Your task to perform on an android device: allow cookies in the chrome app Image 0: 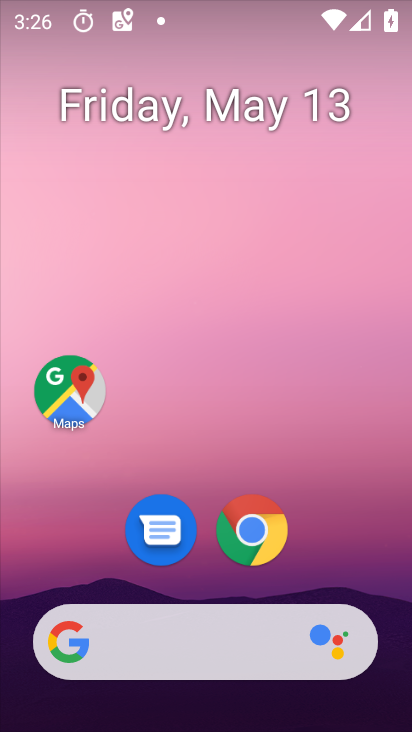
Step 0: click (257, 539)
Your task to perform on an android device: allow cookies in the chrome app Image 1: 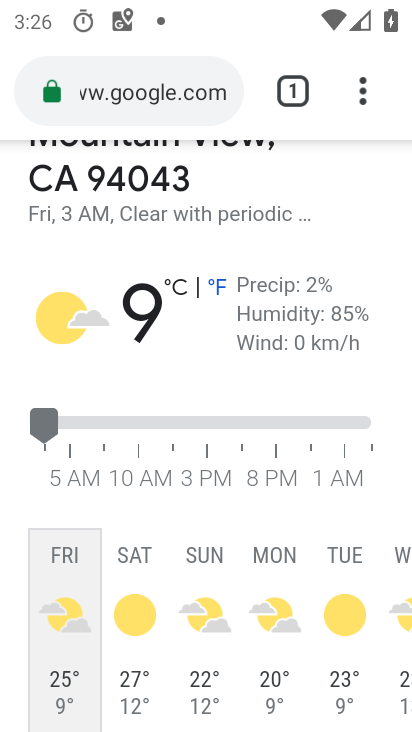
Step 1: click (360, 88)
Your task to perform on an android device: allow cookies in the chrome app Image 2: 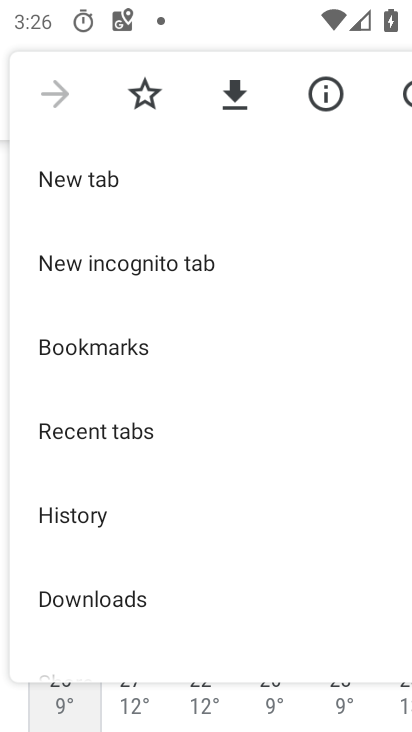
Step 2: drag from (221, 428) to (286, 37)
Your task to perform on an android device: allow cookies in the chrome app Image 3: 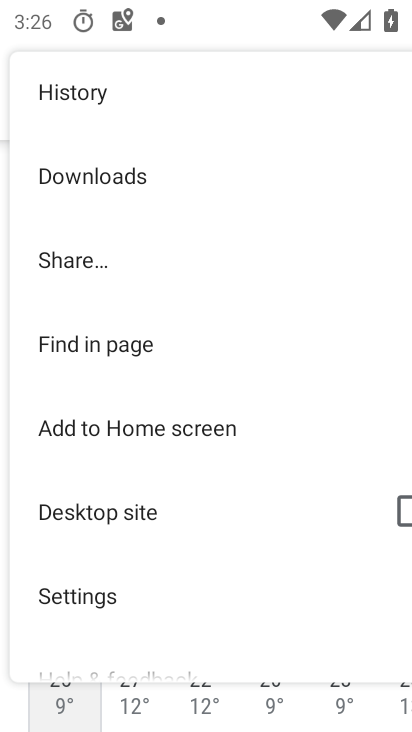
Step 3: drag from (190, 557) to (261, 242)
Your task to perform on an android device: allow cookies in the chrome app Image 4: 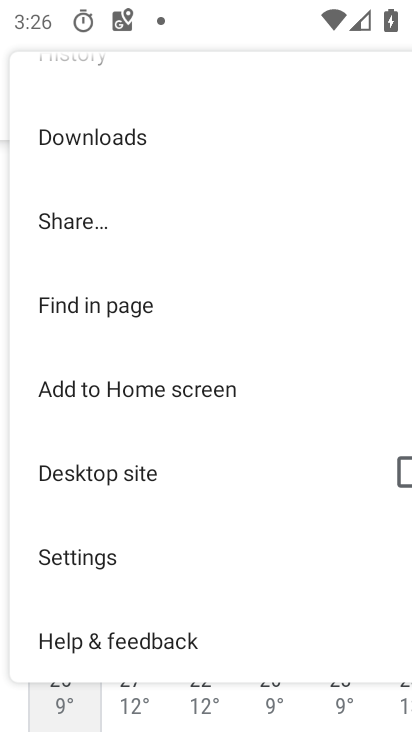
Step 4: drag from (132, 467) to (194, 250)
Your task to perform on an android device: allow cookies in the chrome app Image 5: 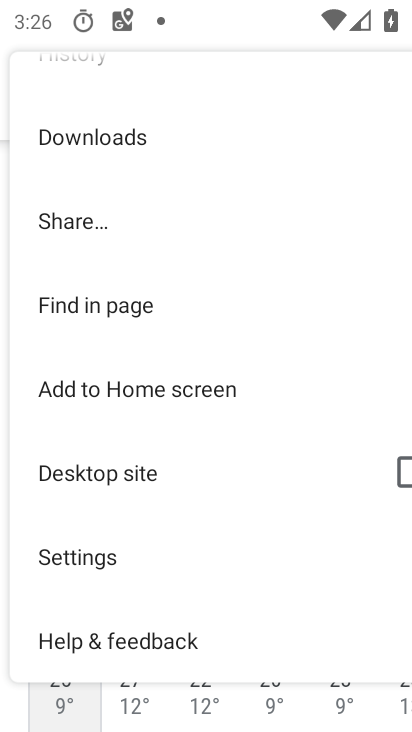
Step 5: click (88, 566)
Your task to perform on an android device: allow cookies in the chrome app Image 6: 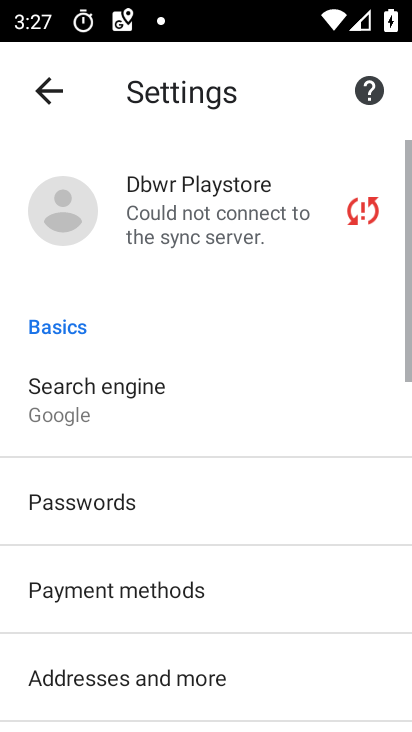
Step 6: drag from (180, 645) to (252, 294)
Your task to perform on an android device: allow cookies in the chrome app Image 7: 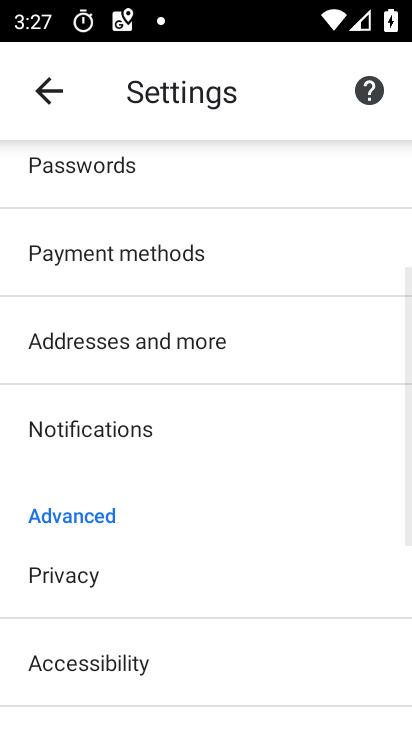
Step 7: drag from (193, 625) to (237, 277)
Your task to perform on an android device: allow cookies in the chrome app Image 8: 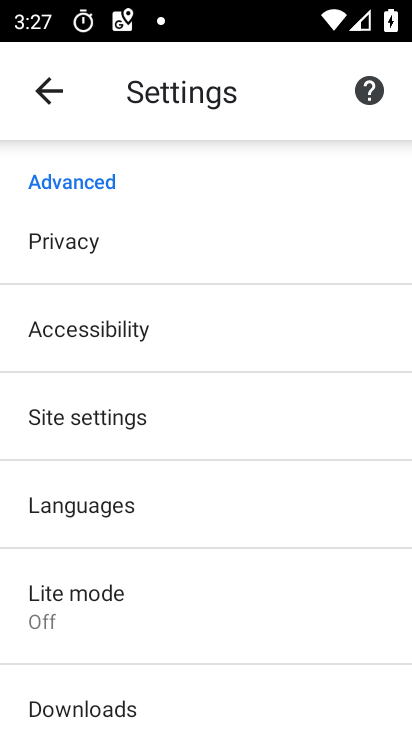
Step 8: click (159, 415)
Your task to perform on an android device: allow cookies in the chrome app Image 9: 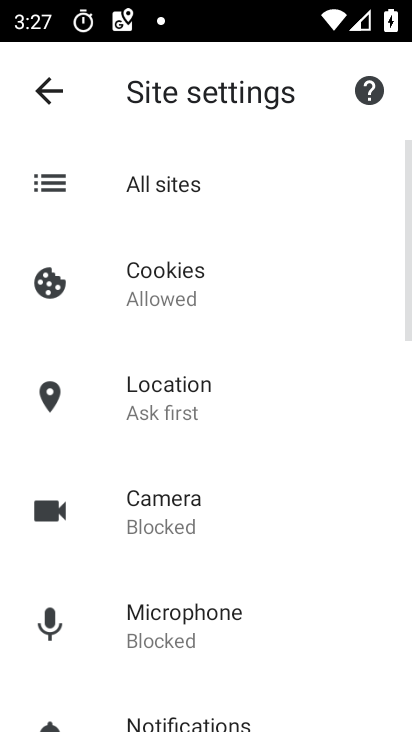
Step 9: click (151, 287)
Your task to perform on an android device: allow cookies in the chrome app Image 10: 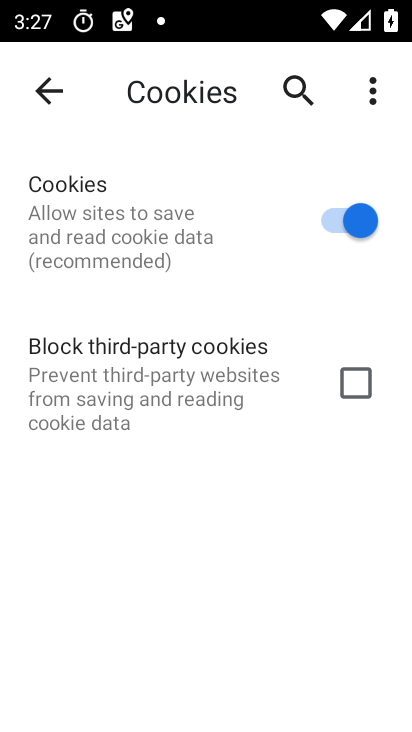
Step 10: task complete